Your task to perform on an android device: read, delete, or share a saved page in the chrome app Image 0: 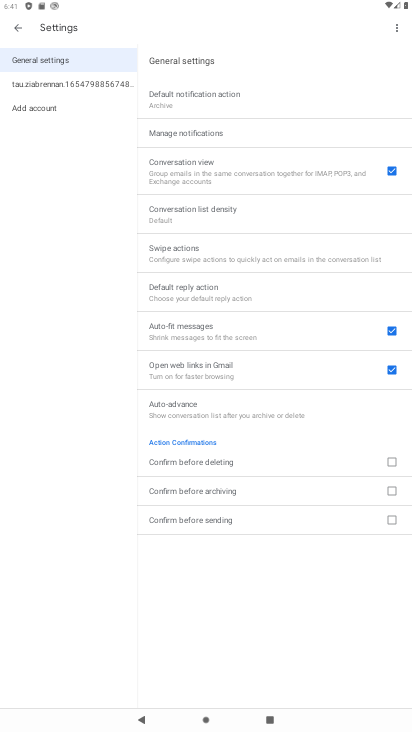
Step 0: press home button
Your task to perform on an android device: read, delete, or share a saved page in the chrome app Image 1: 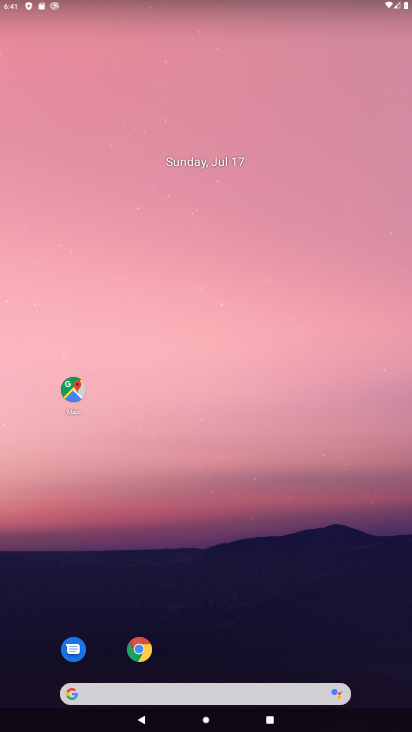
Step 1: click (139, 653)
Your task to perform on an android device: read, delete, or share a saved page in the chrome app Image 2: 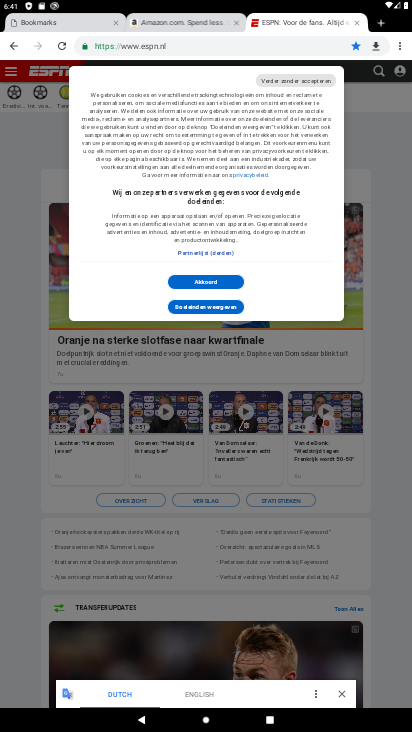
Step 2: click (403, 45)
Your task to perform on an android device: read, delete, or share a saved page in the chrome app Image 3: 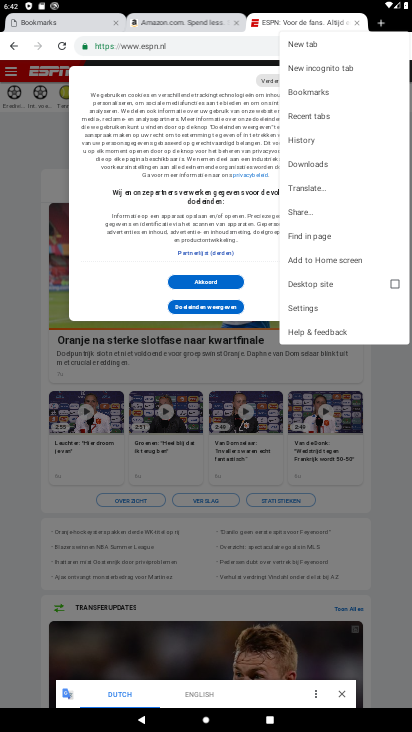
Step 3: click (298, 160)
Your task to perform on an android device: read, delete, or share a saved page in the chrome app Image 4: 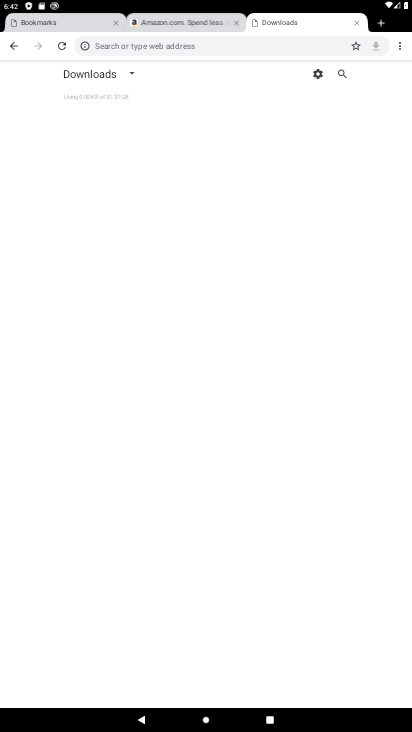
Step 4: task complete